Your task to perform on an android device: open app "Airtel Thanks" (install if not already installed) and go to login screen Image 0: 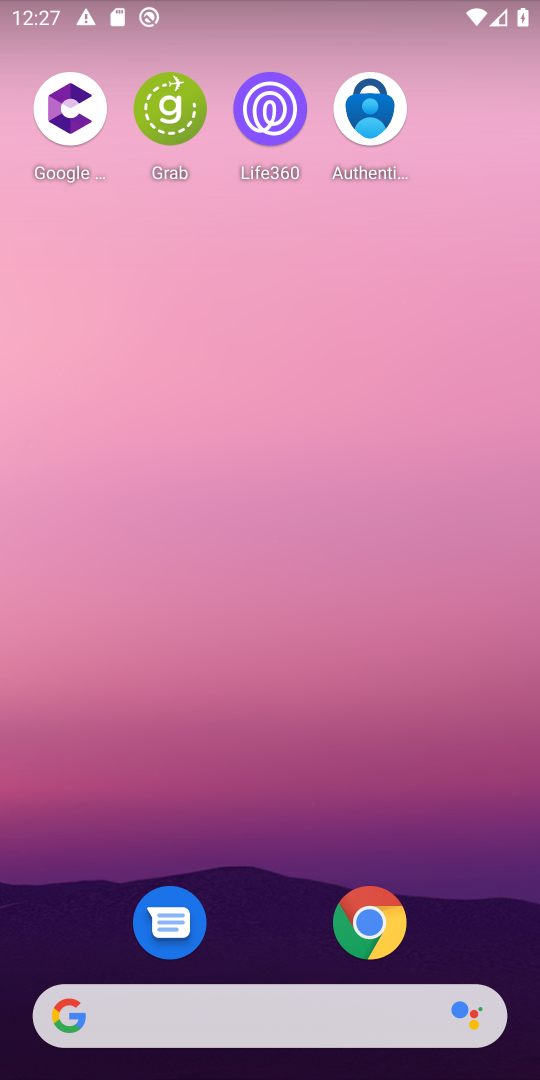
Step 0: drag from (249, 722) to (286, 192)
Your task to perform on an android device: open app "Airtel Thanks" (install if not already installed) and go to login screen Image 1: 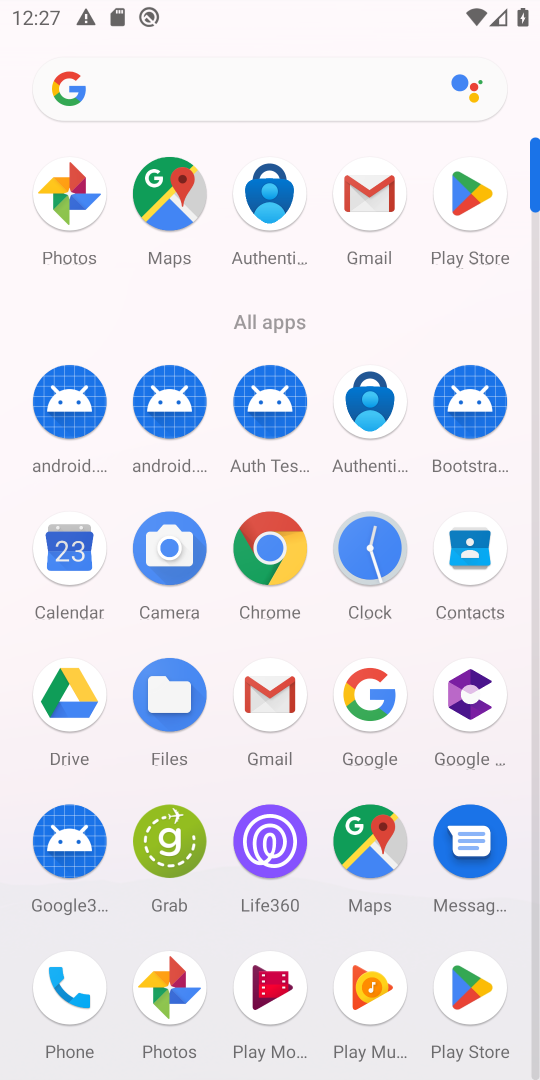
Step 1: click (466, 212)
Your task to perform on an android device: open app "Airtel Thanks" (install if not already installed) and go to login screen Image 2: 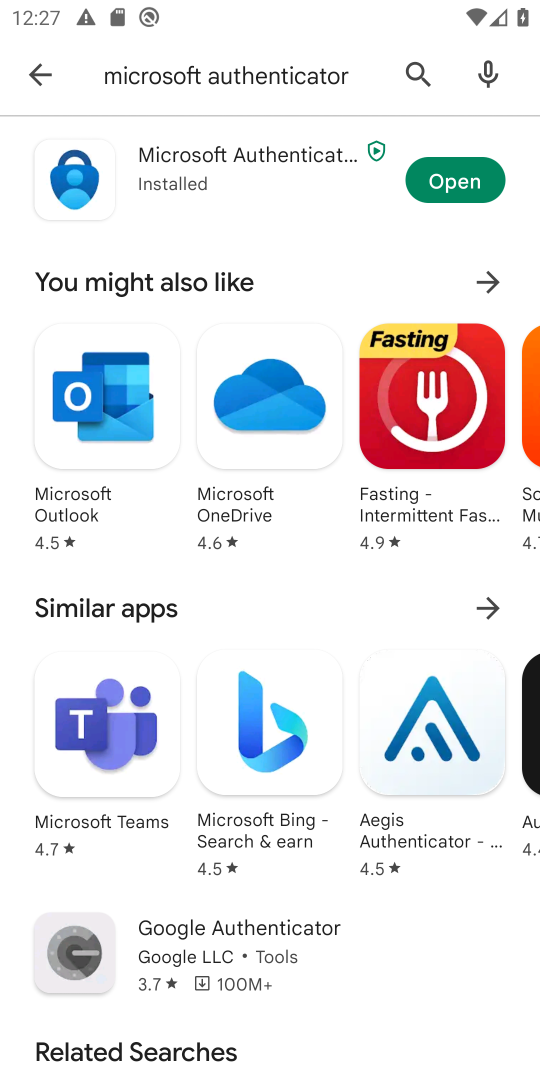
Step 2: click (221, 87)
Your task to perform on an android device: open app "Airtel Thanks" (install if not already installed) and go to login screen Image 3: 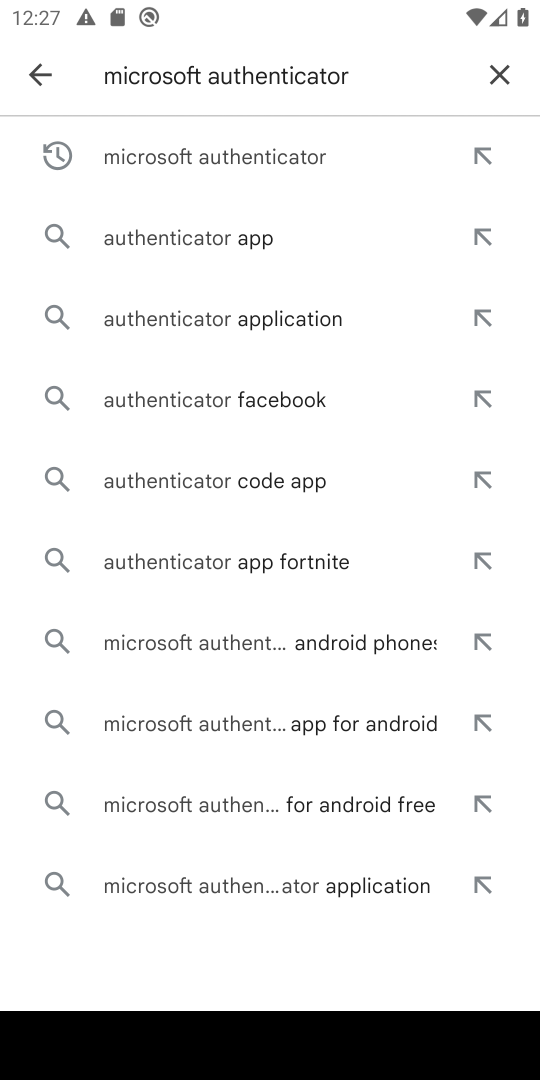
Step 3: click (497, 61)
Your task to perform on an android device: open app "Airtel Thanks" (install if not already installed) and go to login screen Image 4: 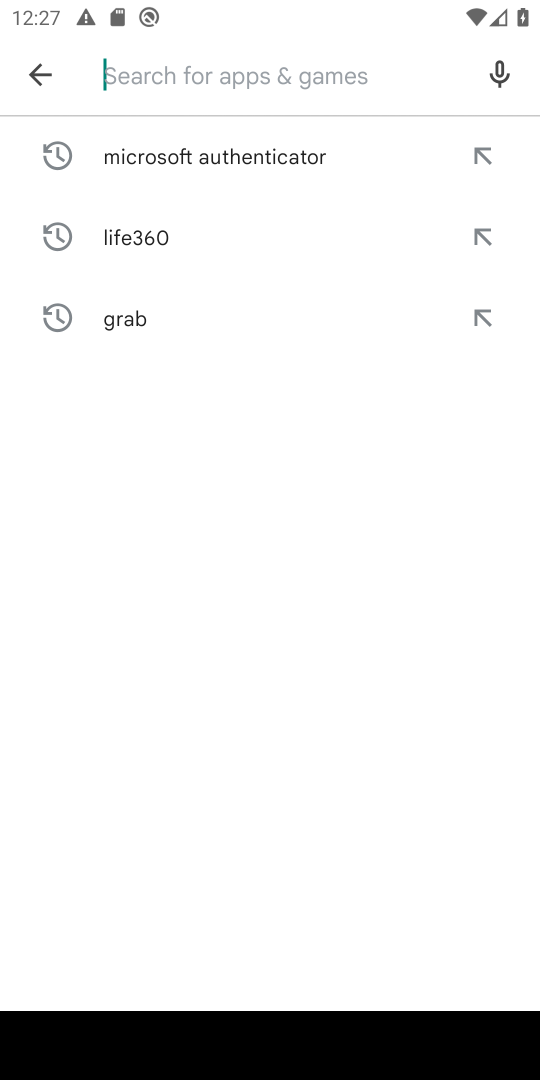
Step 4: type "Airtel thanks"
Your task to perform on an android device: open app "Airtel Thanks" (install if not already installed) and go to login screen Image 5: 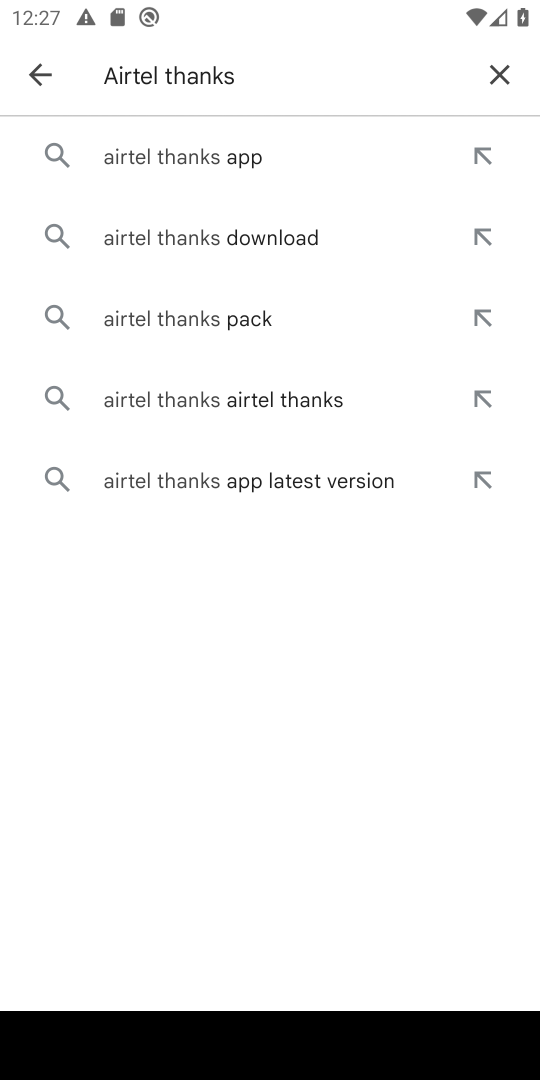
Step 5: click (226, 171)
Your task to perform on an android device: open app "Airtel Thanks" (install if not already installed) and go to login screen Image 6: 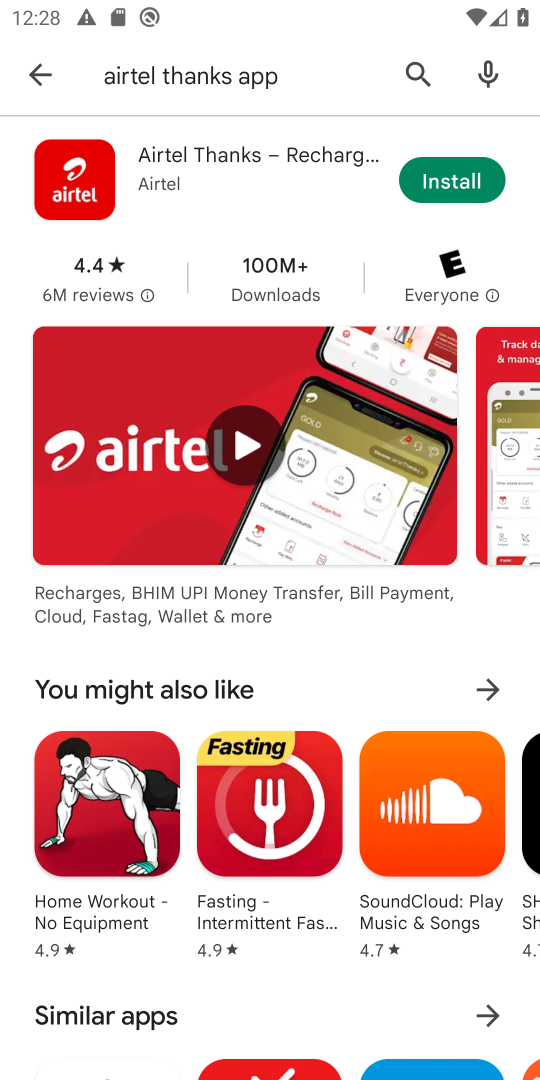
Step 6: click (474, 177)
Your task to perform on an android device: open app "Airtel Thanks" (install if not already installed) and go to login screen Image 7: 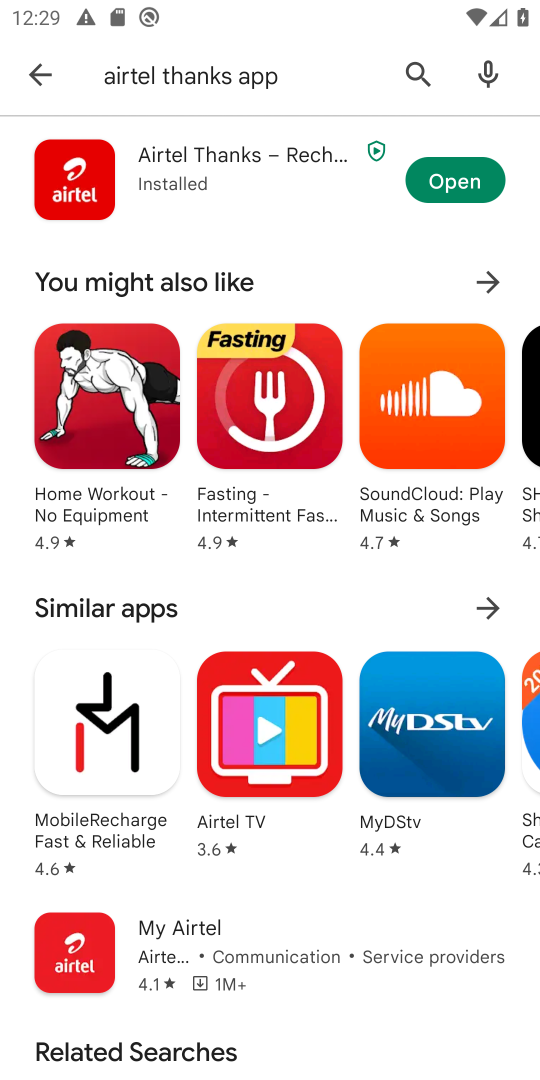
Step 7: click (466, 182)
Your task to perform on an android device: open app "Airtel Thanks" (install if not already installed) and go to login screen Image 8: 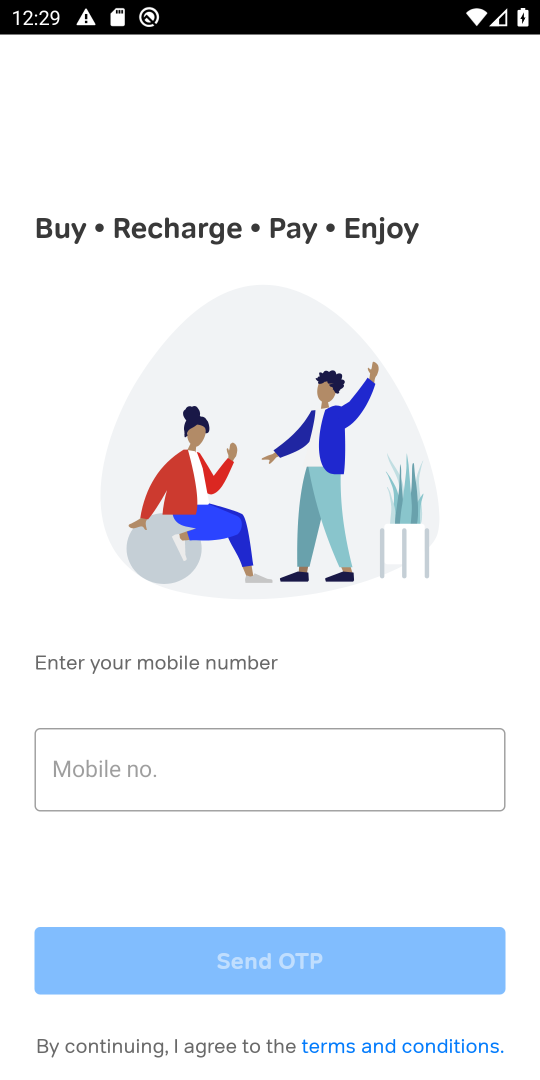
Step 8: task complete